Your task to perform on an android device: Go to calendar. Show me events next week Image 0: 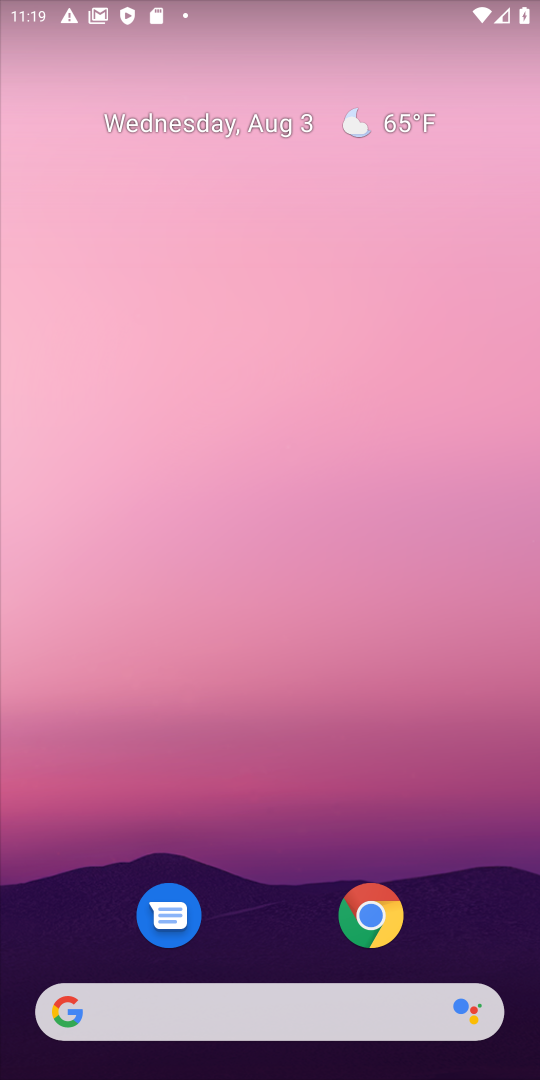
Step 0: drag from (237, 768) to (217, 58)
Your task to perform on an android device: Go to calendar. Show me events next week Image 1: 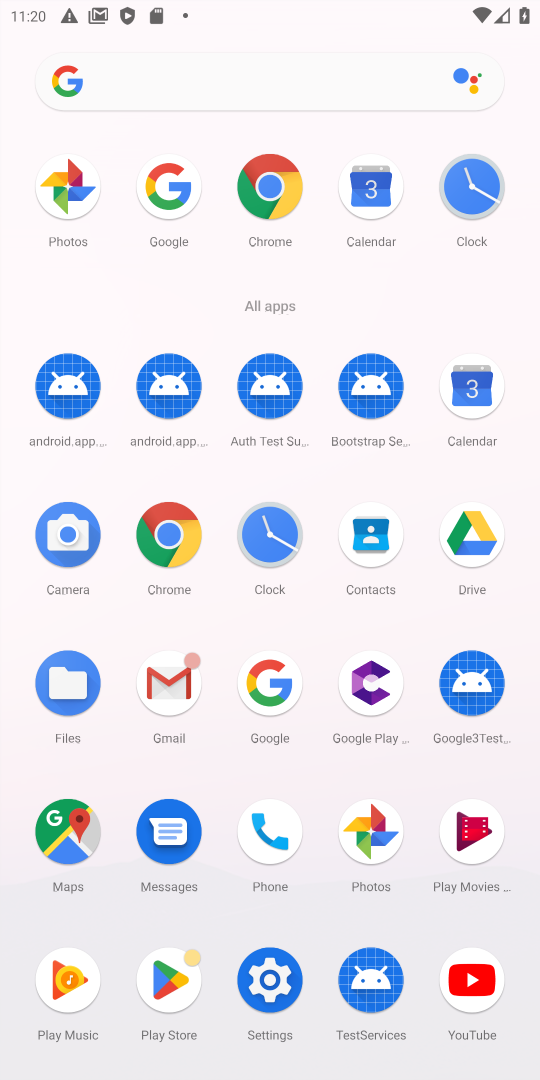
Step 1: click (485, 401)
Your task to perform on an android device: Go to calendar. Show me events next week Image 2: 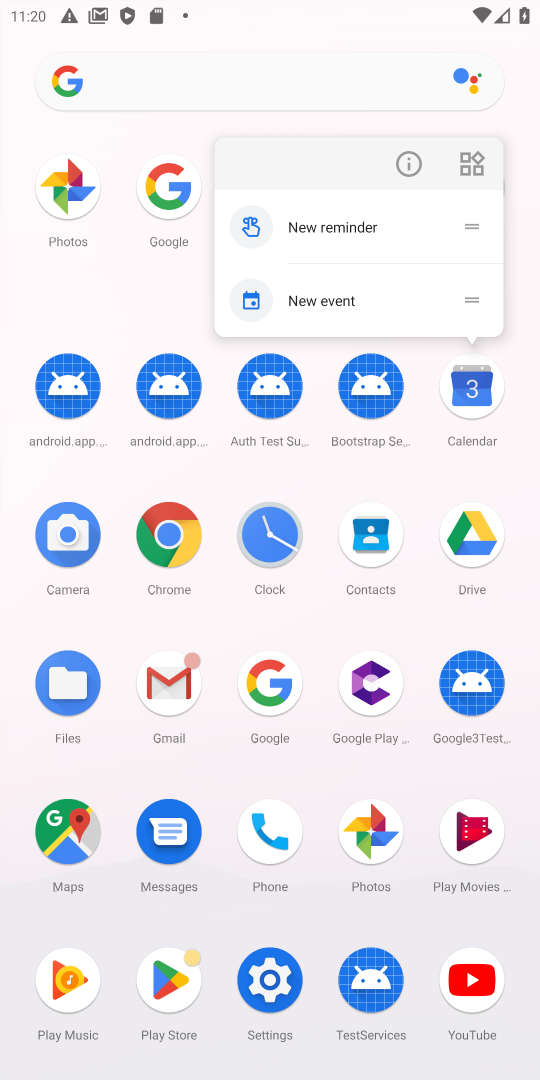
Step 2: click (475, 407)
Your task to perform on an android device: Go to calendar. Show me events next week Image 3: 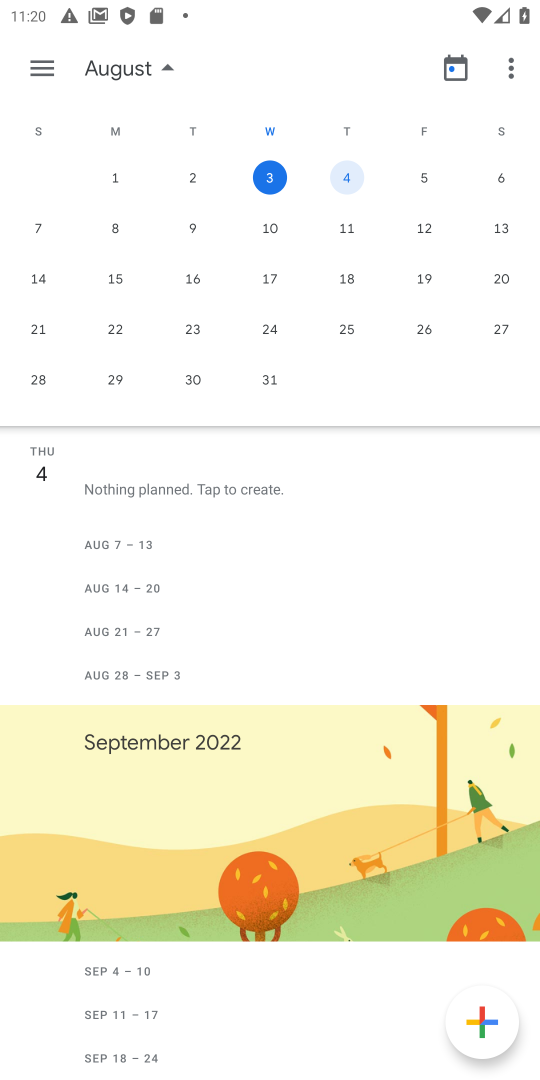
Step 3: click (50, 69)
Your task to perform on an android device: Go to calendar. Show me events next week Image 4: 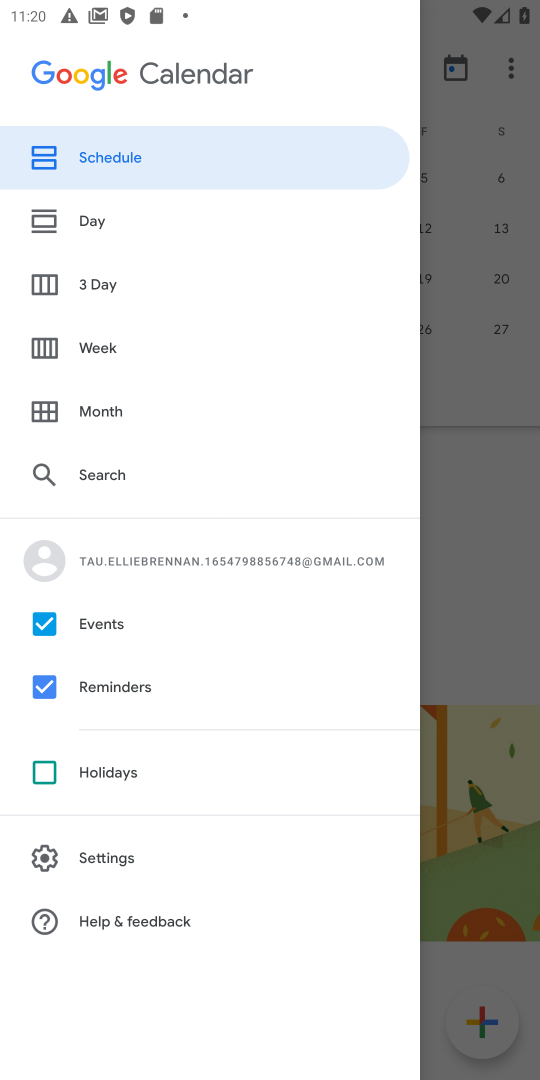
Step 4: click (95, 349)
Your task to perform on an android device: Go to calendar. Show me events next week Image 5: 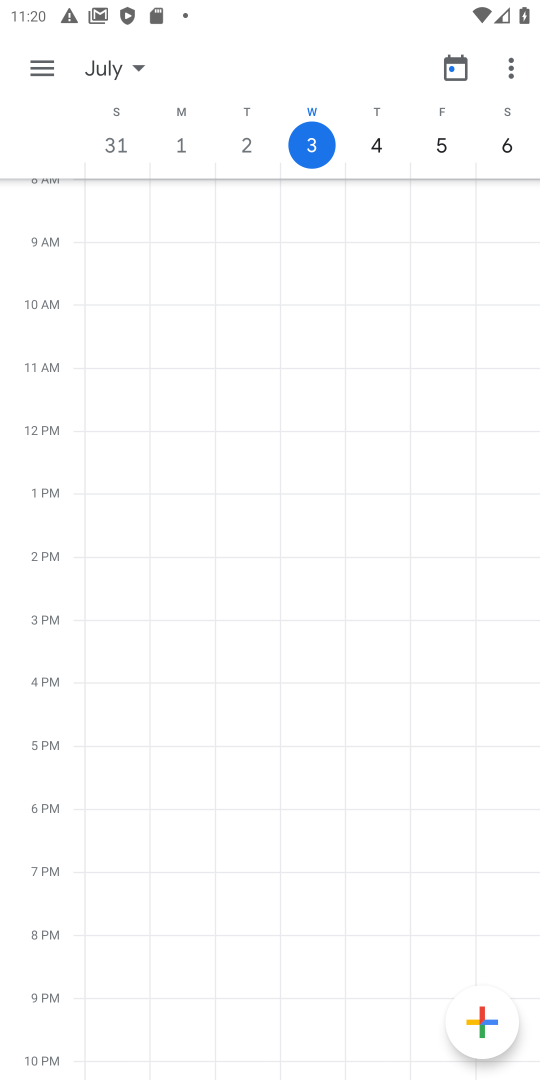
Step 5: click (125, 69)
Your task to perform on an android device: Go to calendar. Show me events next week Image 6: 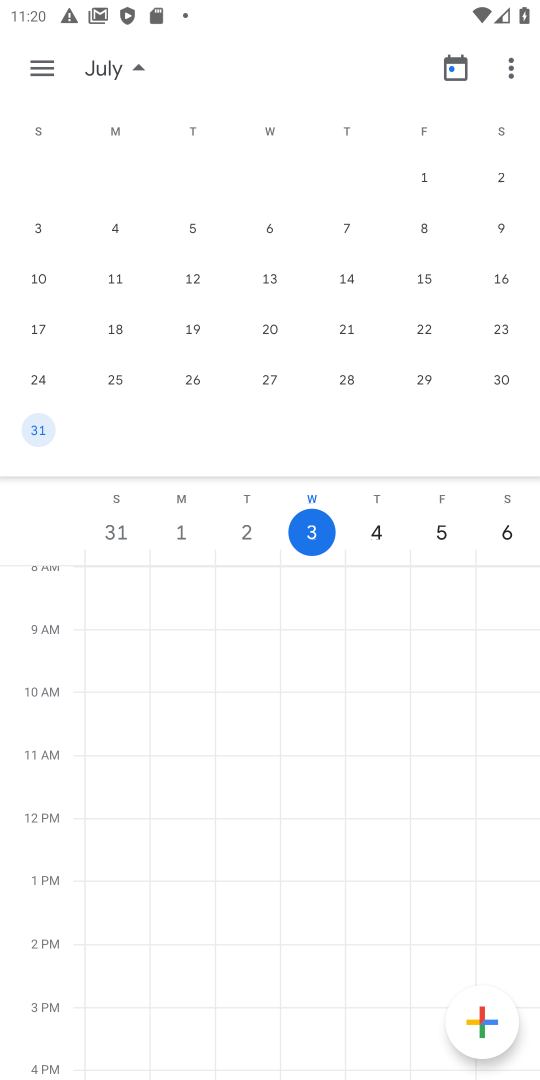
Step 6: drag from (406, 256) to (64, 222)
Your task to perform on an android device: Go to calendar. Show me events next week Image 7: 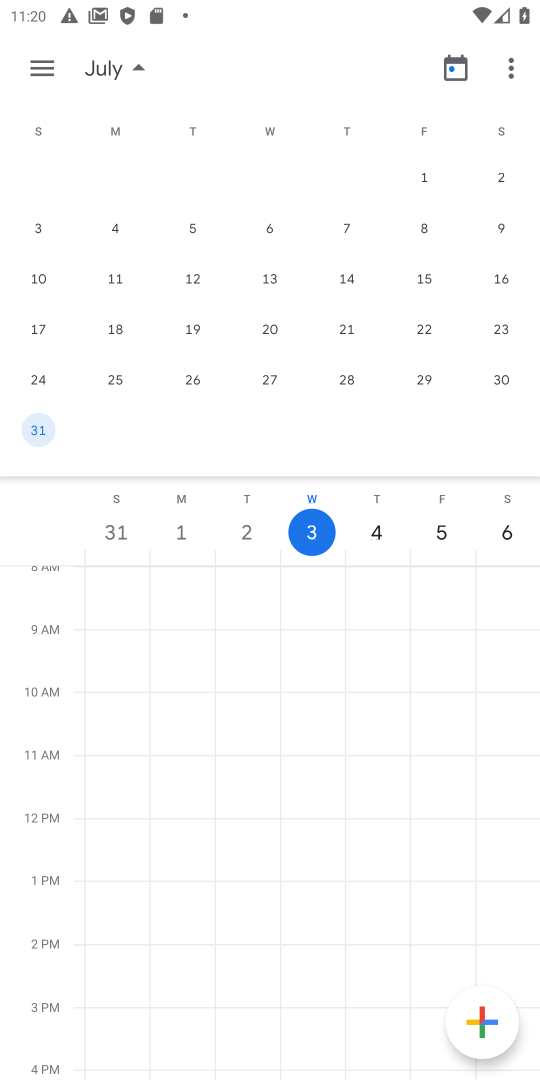
Step 7: drag from (382, 257) to (24, 242)
Your task to perform on an android device: Go to calendar. Show me events next week Image 8: 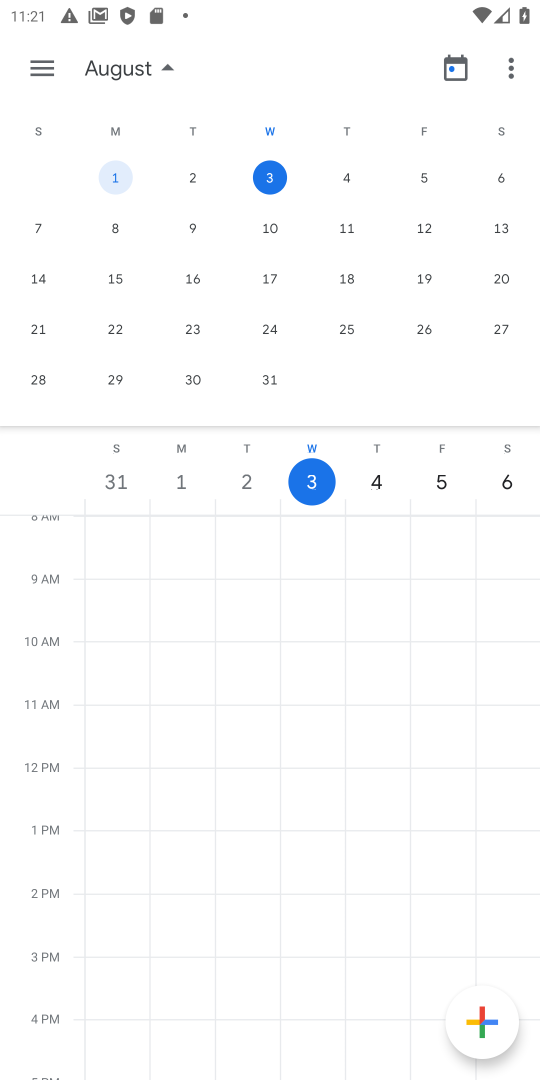
Step 8: click (37, 229)
Your task to perform on an android device: Go to calendar. Show me events next week Image 9: 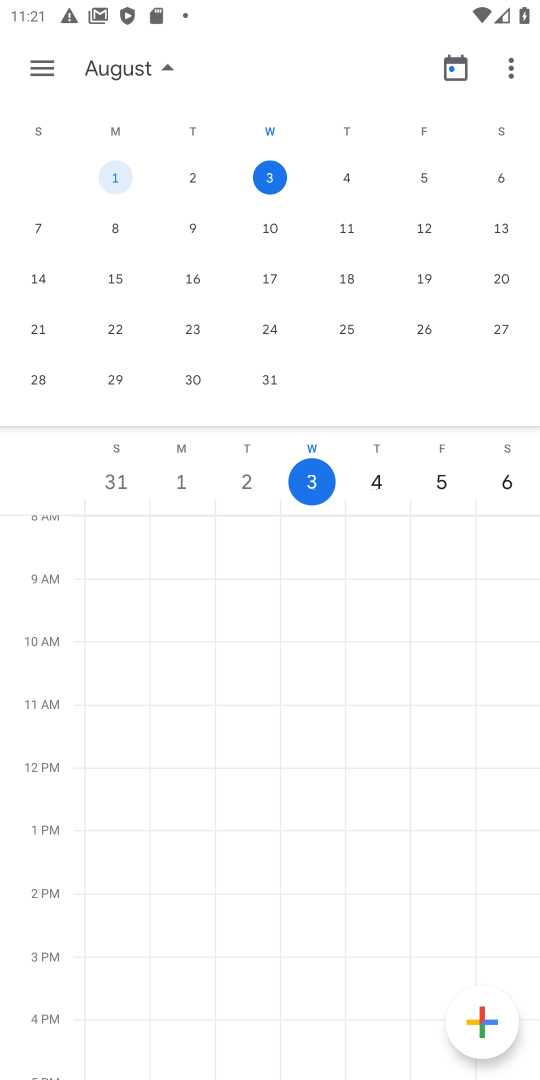
Step 9: click (37, 229)
Your task to perform on an android device: Go to calendar. Show me events next week Image 10: 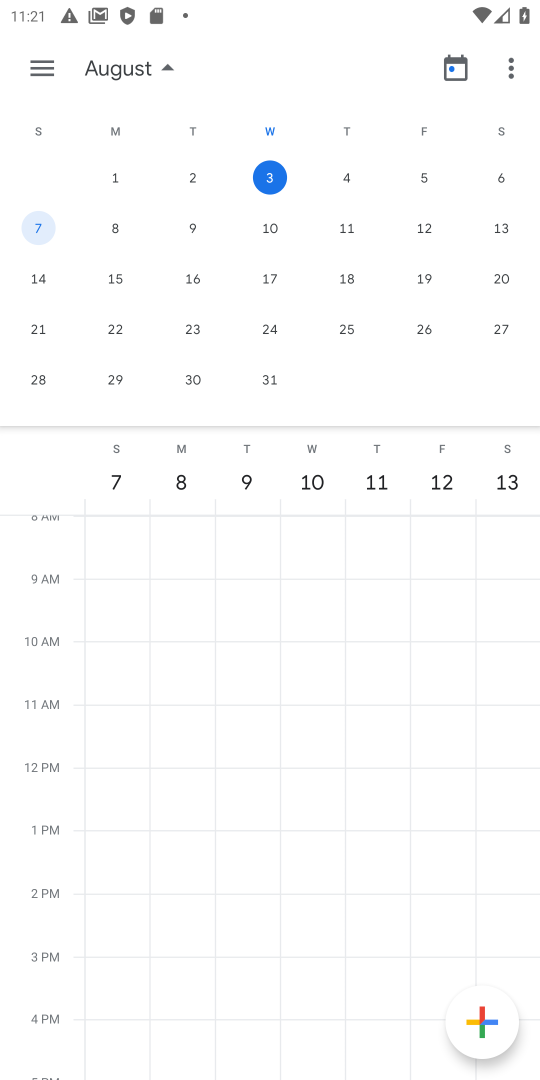
Step 10: task complete